Your task to perform on an android device: Open Android settings Image 0: 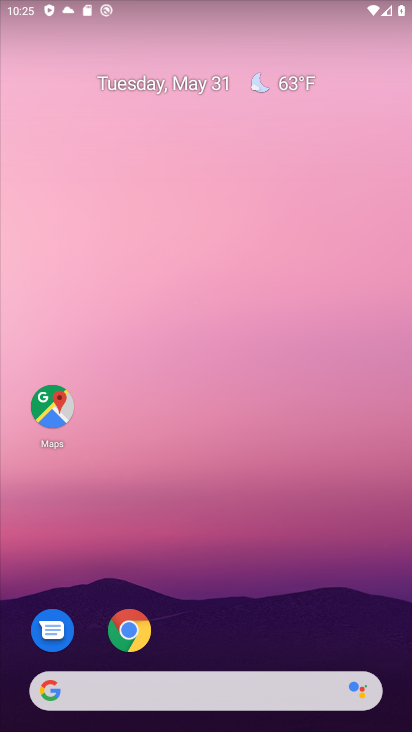
Step 0: drag from (204, 642) to (192, 133)
Your task to perform on an android device: Open Android settings Image 1: 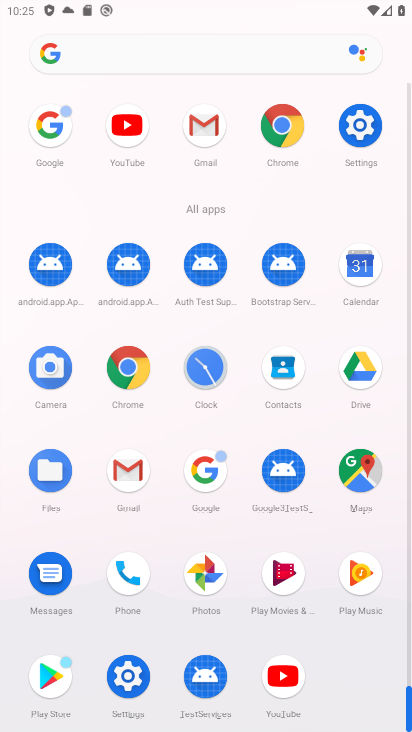
Step 1: click (363, 149)
Your task to perform on an android device: Open Android settings Image 2: 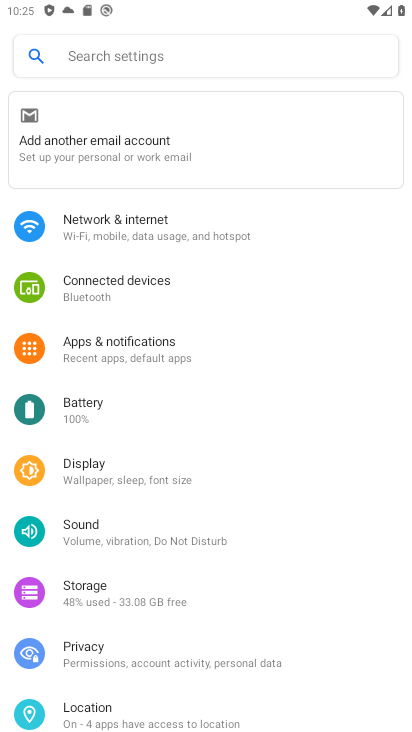
Step 2: drag from (174, 594) to (172, 268)
Your task to perform on an android device: Open Android settings Image 3: 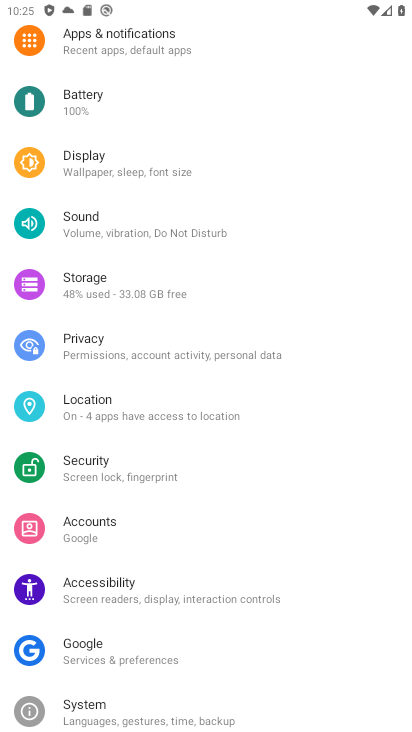
Step 3: drag from (217, 667) to (204, 283)
Your task to perform on an android device: Open Android settings Image 4: 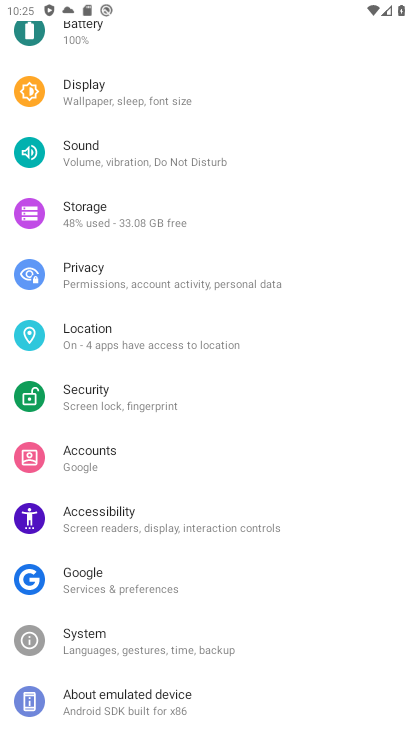
Step 4: click (122, 711)
Your task to perform on an android device: Open Android settings Image 5: 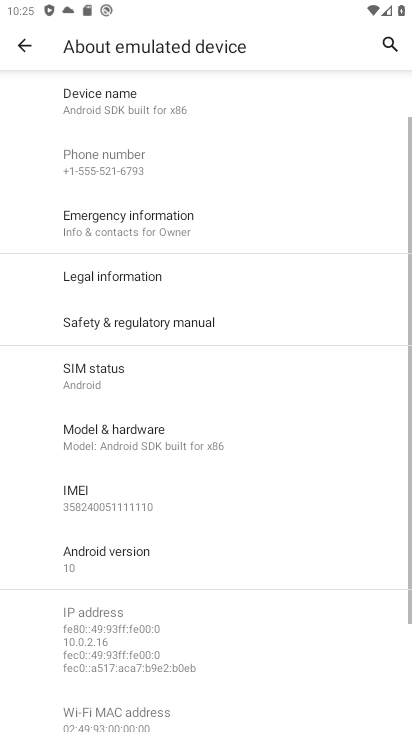
Step 5: click (109, 571)
Your task to perform on an android device: Open Android settings Image 6: 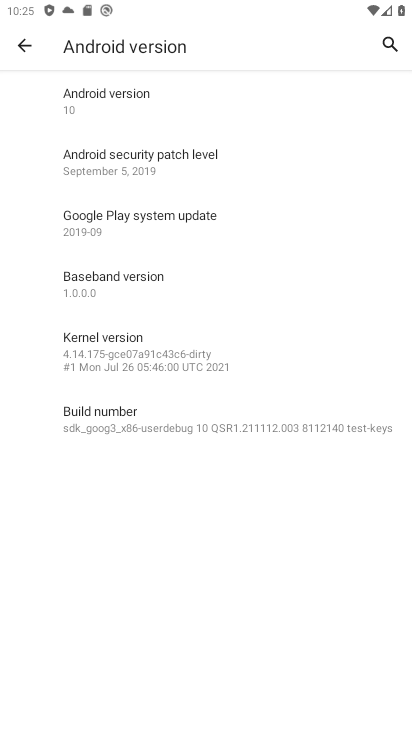
Step 6: task complete